Your task to perform on an android device: turn on the 24-hour format for clock Image 0: 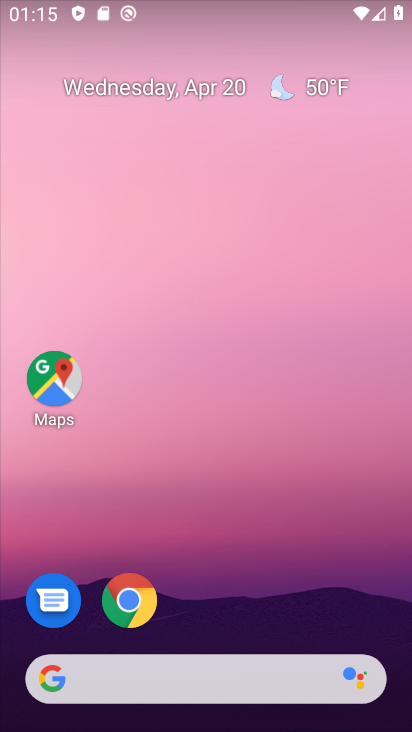
Step 0: drag from (241, 590) to (288, 65)
Your task to perform on an android device: turn on the 24-hour format for clock Image 1: 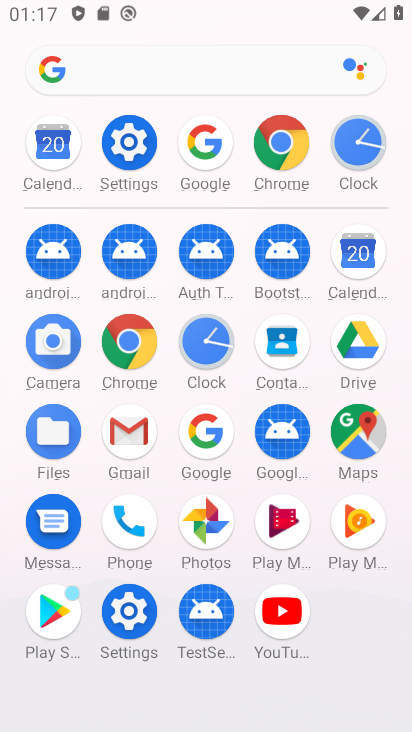
Step 1: click (204, 340)
Your task to perform on an android device: turn on the 24-hour format for clock Image 2: 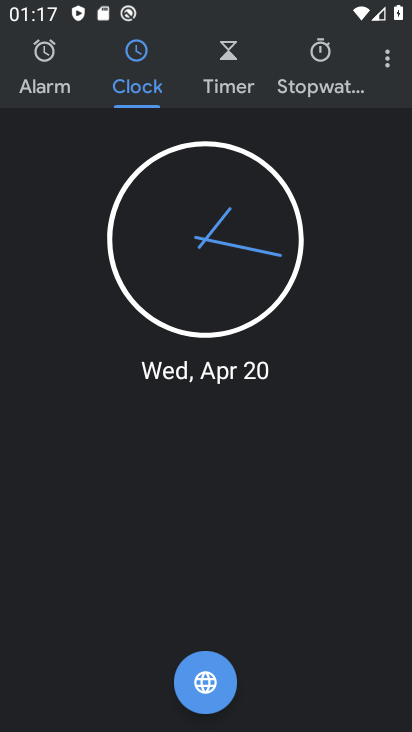
Step 2: click (387, 57)
Your task to perform on an android device: turn on the 24-hour format for clock Image 3: 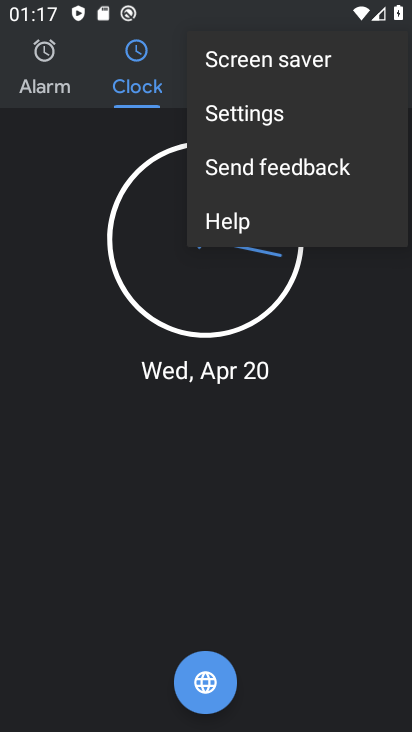
Step 3: click (225, 105)
Your task to perform on an android device: turn on the 24-hour format for clock Image 4: 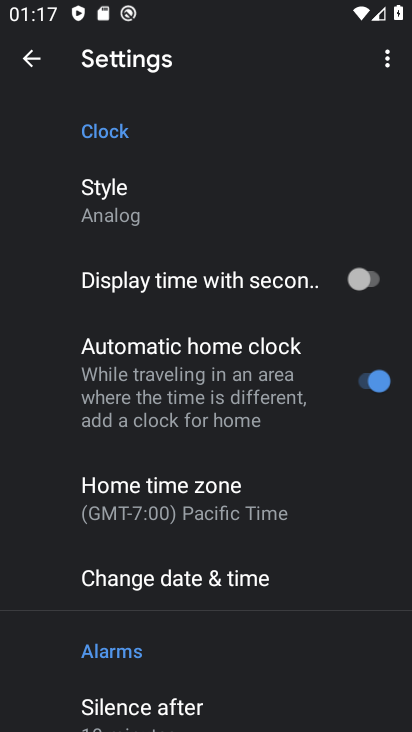
Step 4: drag from (275, 528) to (228, 116)
Your task to perform on an android device: turn on the 24-hour format for clock Image 5: 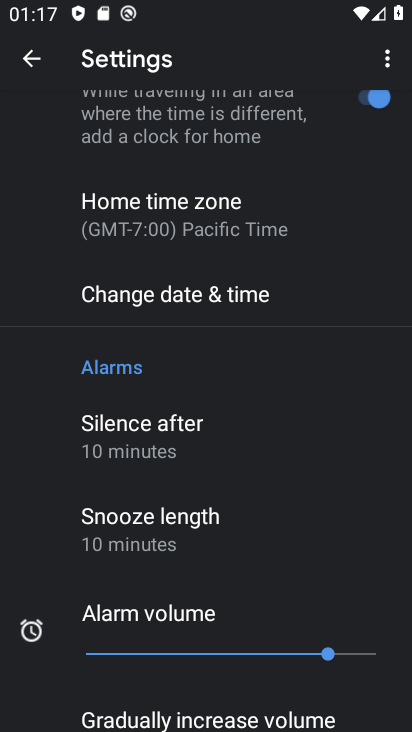
Step 5: click (193, 306)
Your task to perform on an android device: turn on the 24-hour format for clock Image 6: 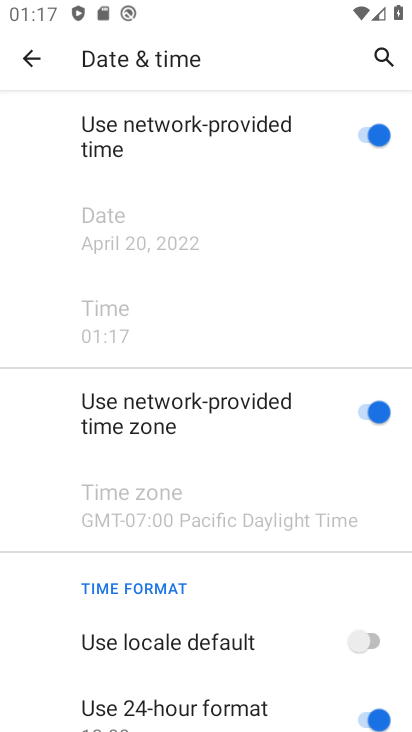
Step 6: drag from (211, 649) to (226, 181)
Your task to perform on an android device: turn on the 24-hour format for clock Image 7: 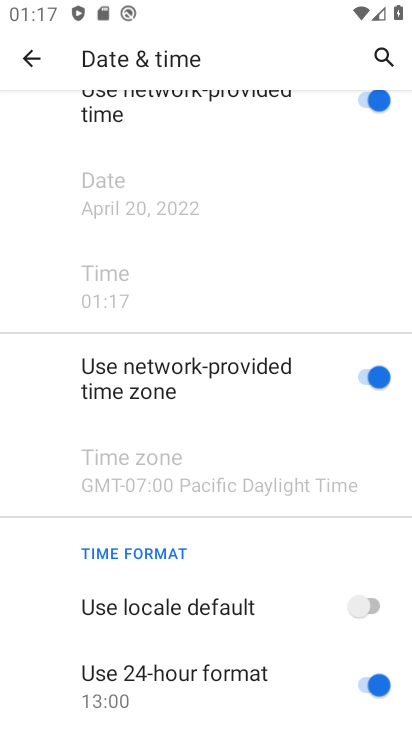
Step 7: click (375, 604)
Your task to perform on an android device: turn on the 24-hour format for clock Image 8: 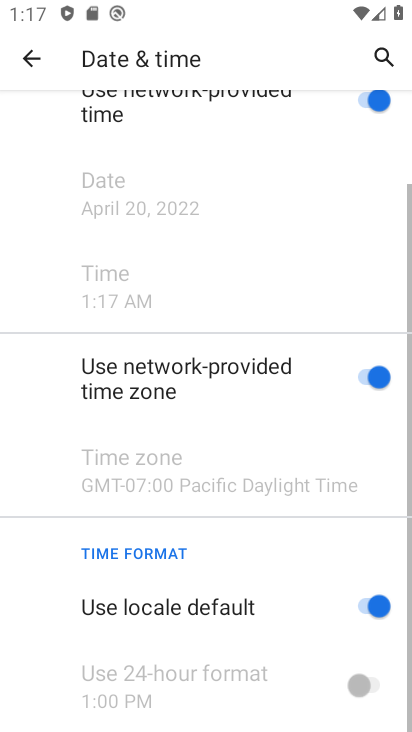
Step 8: click (382, 679)
Your task to perform on an android device: turn on the 24-hour format for clock Image 9: 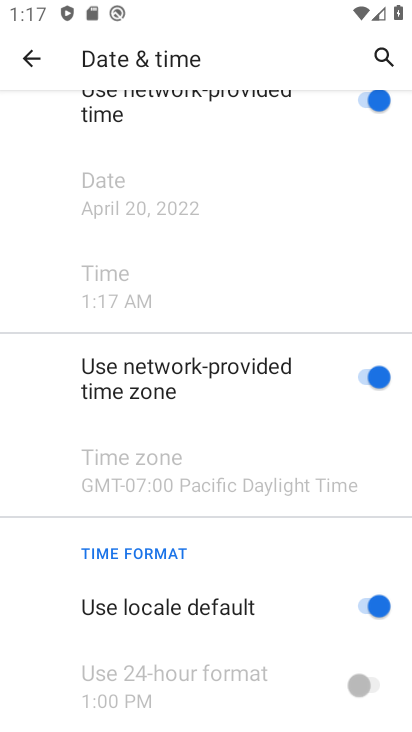
Step 9: click (359, 619)
Your task to perform on an android device: turn on the 24-hour format for clock Image 10: 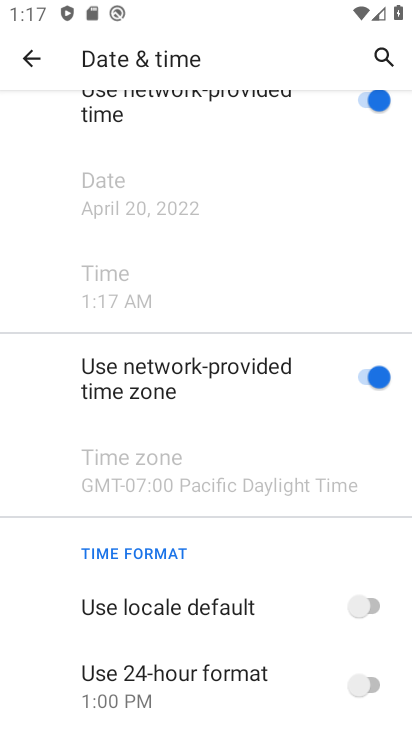
Step 10: click (369, 687)
Your task to perform on an android device: turn on the 24-hour format for clock Image 11: 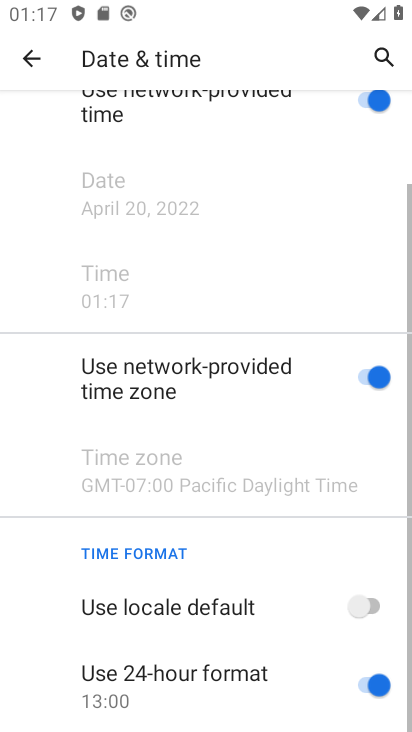
Step 11: task complete